Your task to perform on an android device: Open Yahoo.com Image 0: 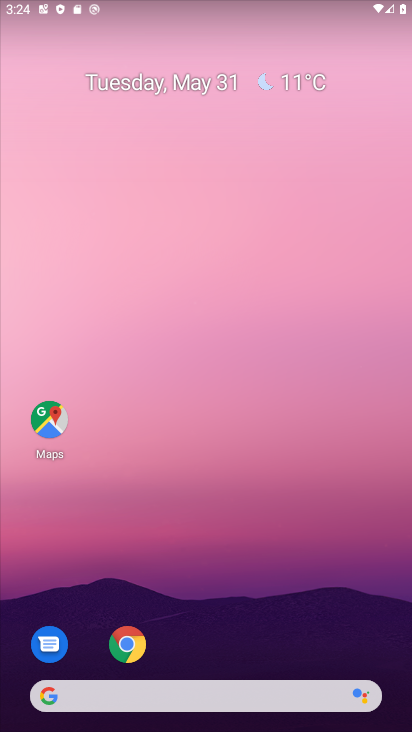
Step 0: click (118, 651)
Your task to perform on an android device: Open Yahoo.com Image 1: 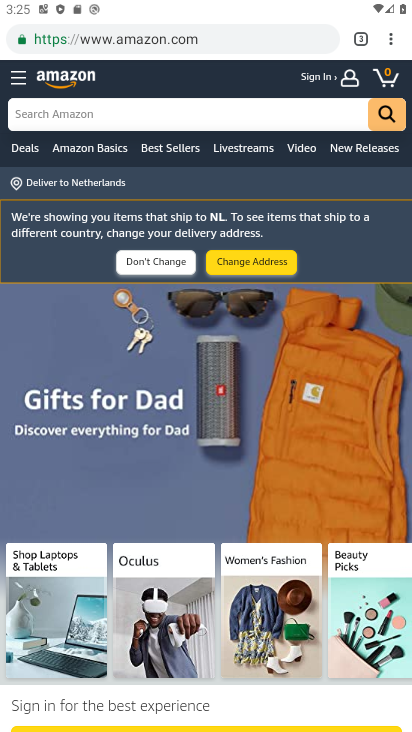
Step 1: click (363, 41)
Your task to perform on an android device: Open Yahoo.com Image 2: 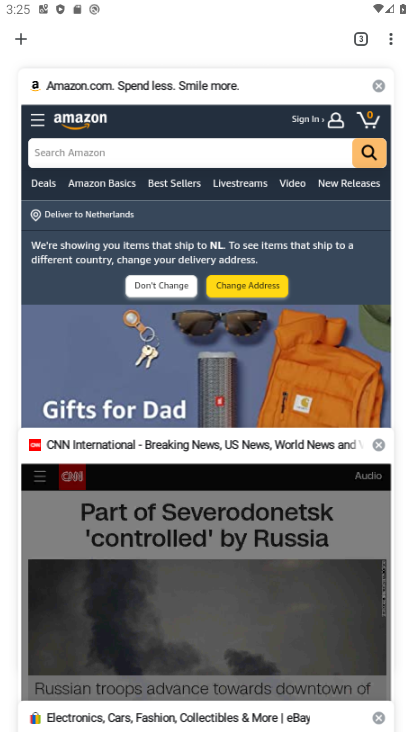
Step 2: drag from (188, 594) to (202, 174)
Your task to perform on an android device: Open Yahoo.com Image 3: 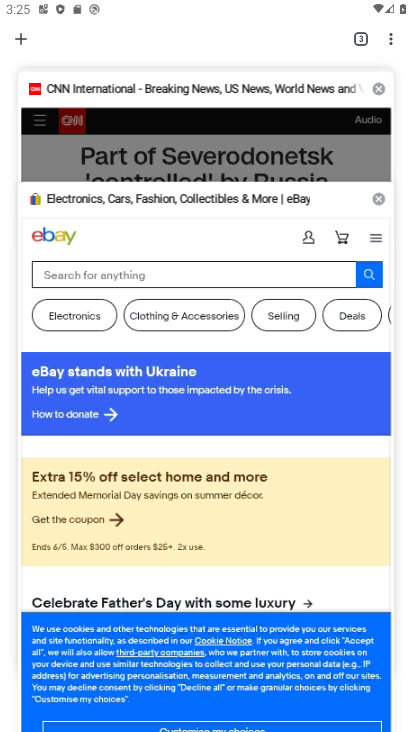
Step 3: click (31, 34)
Your task to perform on an android device: Open Yahoo.com Image 4: 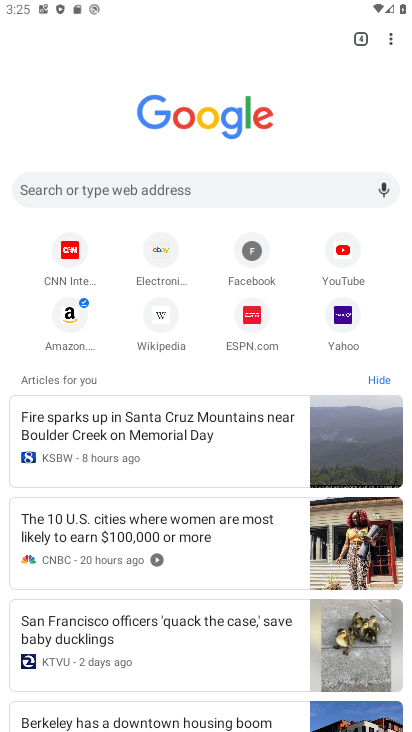
Step 4: click (343, 314)
Your task to perform on an android device: Open Yahoo.com Image 5: 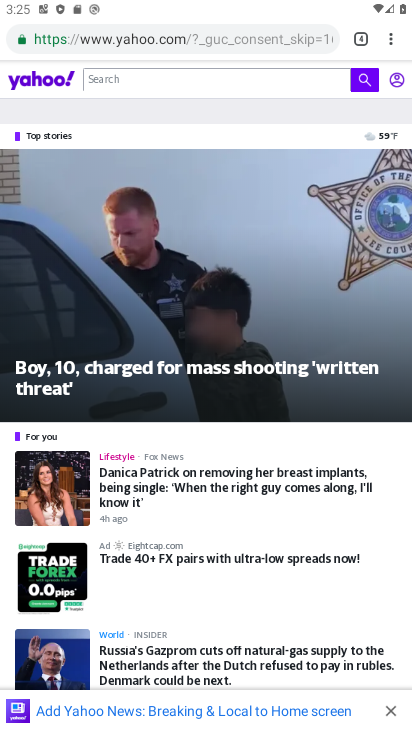
Step 5: task complete